Your task to perform on an android device: toggle javascript in the chrome app Image 0: 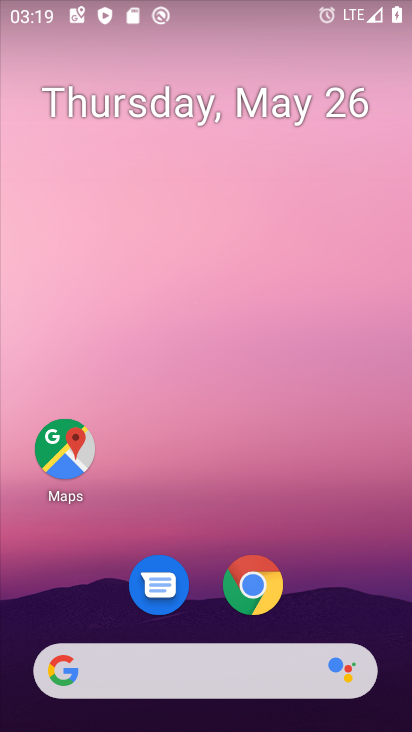
Step 0: click (267, 579)
Your task to perform on an android device: toggle javascript in the chrome app Image 1: 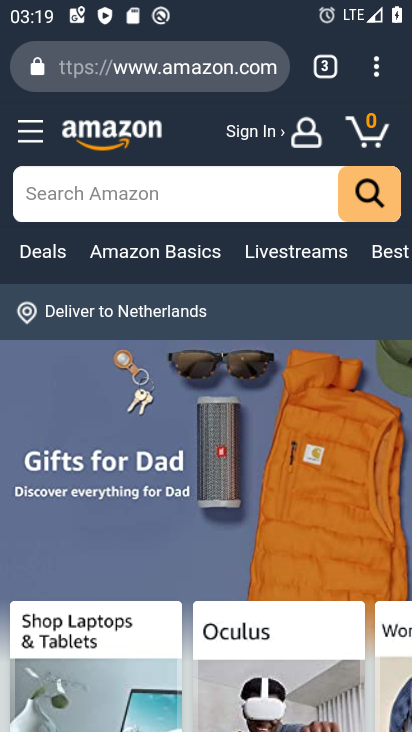
Step 1: click (380, 75)
Your task to perform on an android device: toggle javascript in the chrome app Image 2: 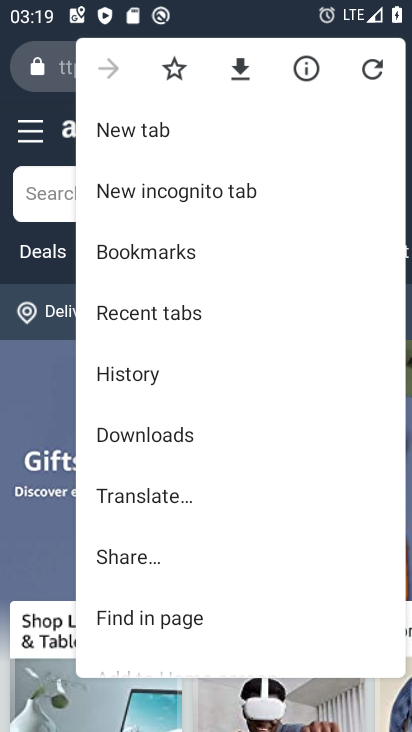
Step 2: drag from (236, 495) to (269, 172)
Your task to perform on an android device: toggle javascript in the chrome app Image 3: 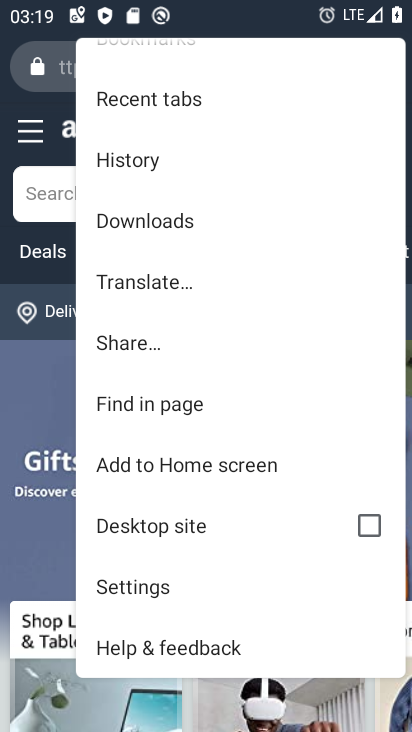
Step 3: click (156, 586)
Your task to perform on an android device: toggle javascript in the chrome app Image 4: 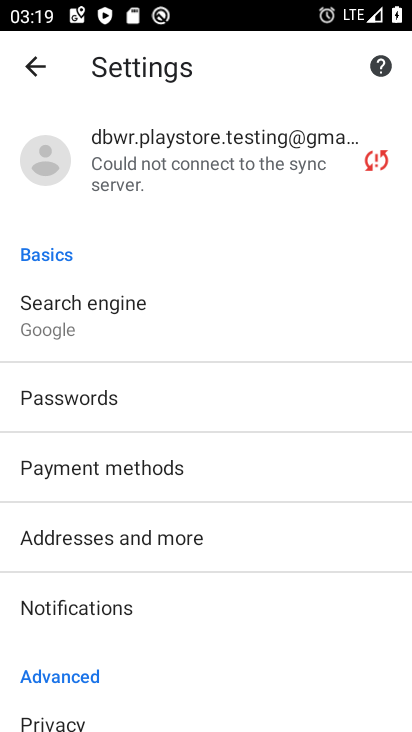
Step 4: drag from (215, 625) to (295, 237)
Your task to perform on an android device: toggle javascript in the chrome app Image 5: 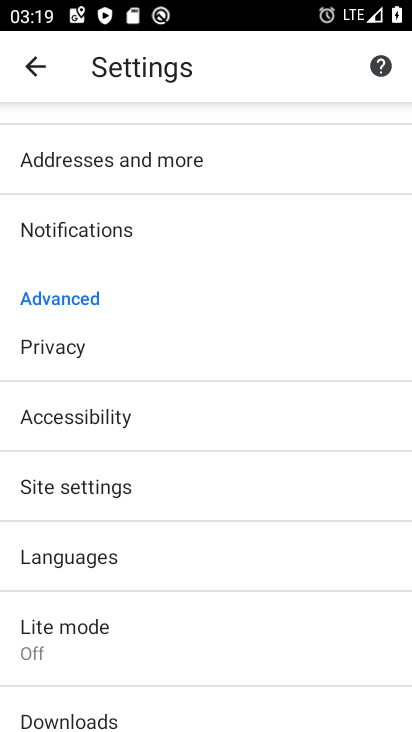
Step 5: click (124, 486)
Your task to perform on an android device: toggle javascript in the chrome app Image 6: 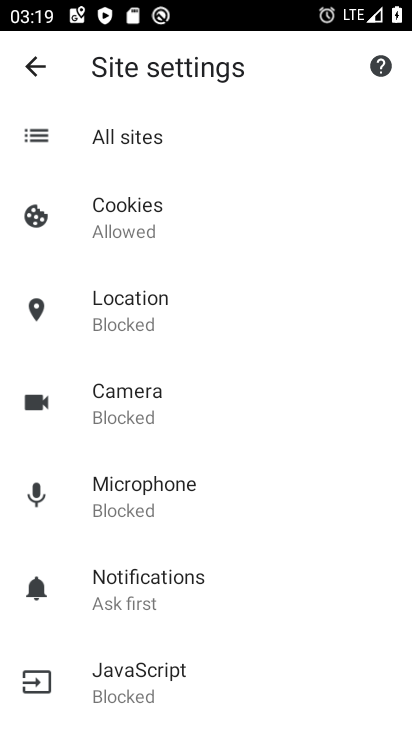
Step 6: drag from (212, 523) to (287, 116)
Your task to perform on an android device: toggle javascript in the chrome app Image 7: 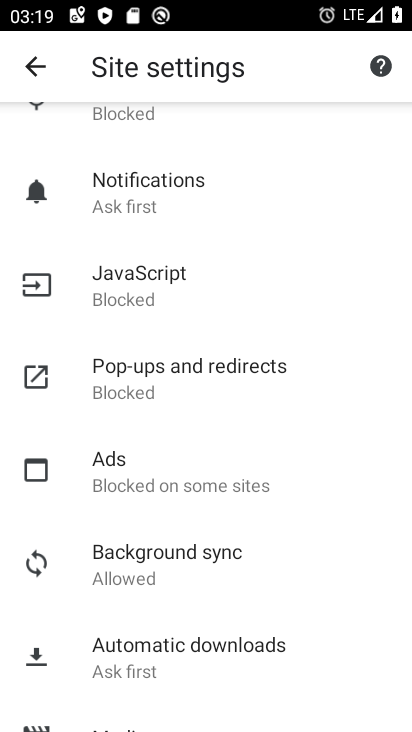
Step 7: click (219, 291)
Your task to perform on an android device: toggle javascript in the chrome app Image 8: 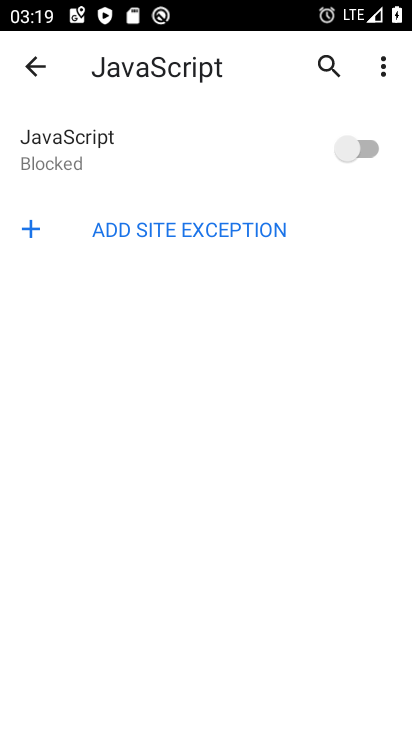
Step 8: click (359, 143)
Your task to perform on an android device: toggle javascript in the chrome app Image 9: 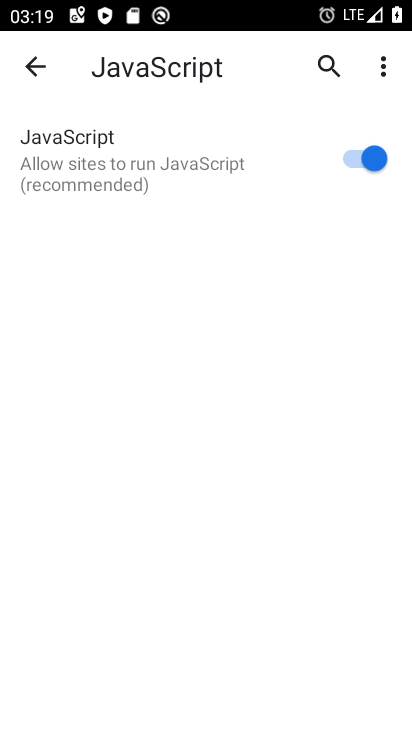
Step 9: task complete